Your task to perform on an android device: turn on data saver in the chrome app Image 0: 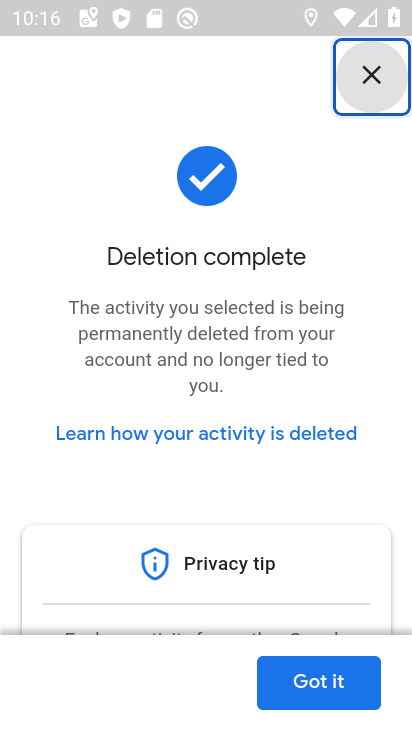
Step 0: press home button
Your task to perform on an android device: turn on data saver in the chrome app Image 1: 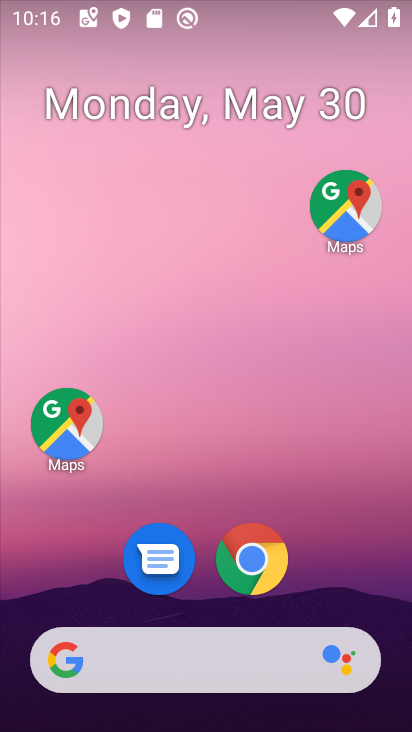
Step 1: click (254, 555)
Your task to perform on an android device: turn on data saver in the chrome app Image 2: 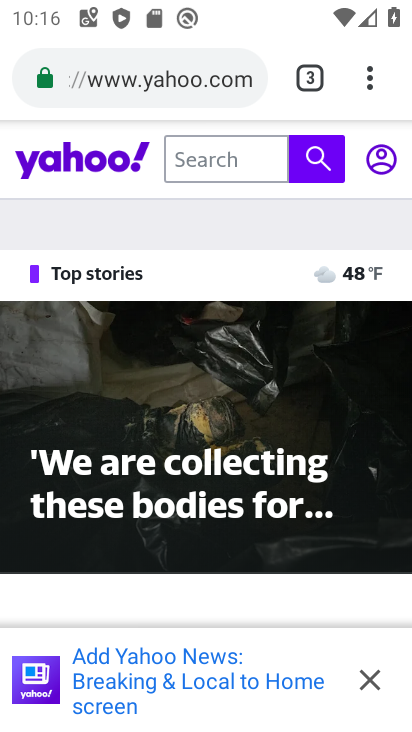
Step 2: drag from (378, 76) to (163, 607)
Your task to perform on an android device: turn on data saver in the chrome app Image 3: 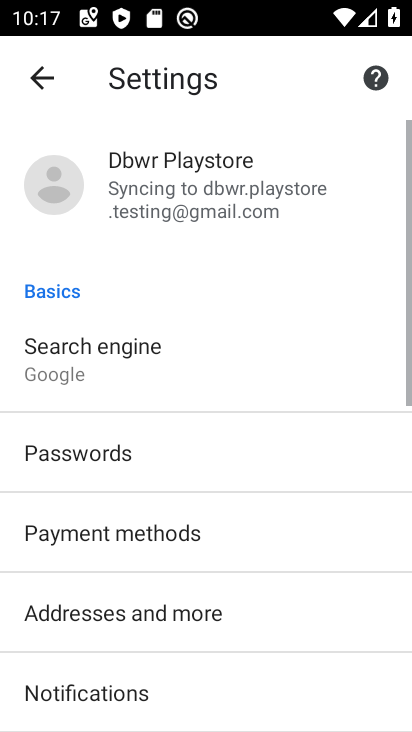
Step 3: drag from (186, 568) to (219, 128)
Your task to perform on an android device: turn on data saver in the chrome app Image 4: 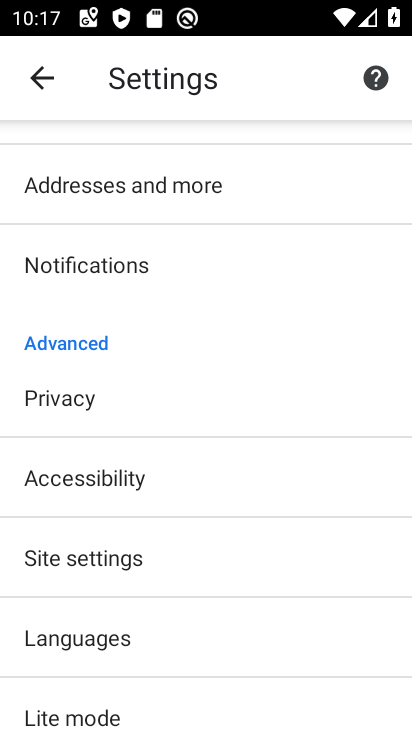
Step 4: drag from (166, 610) to (219, 185)
Your task to perform on an android device: turn on data saver in the chrome app Image 5: 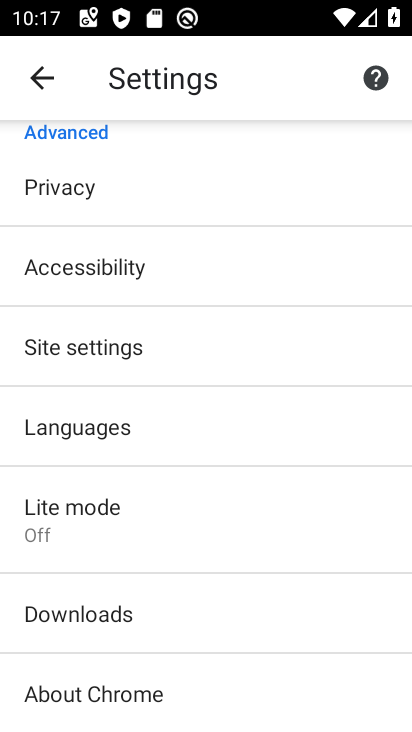
Step 5: click (105, 518)
Your task to perform on an android device: turn on data saver in the chrome app Image 6: 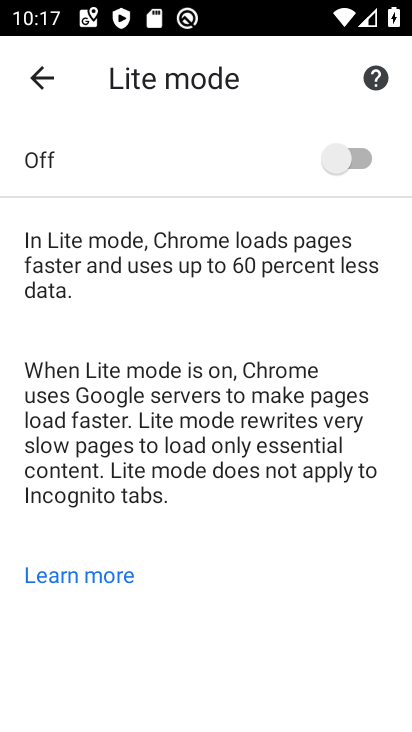
Step 6: click (374, 167)
Your task to perform on an android device: turn on data saver in the chrome app Image 7: 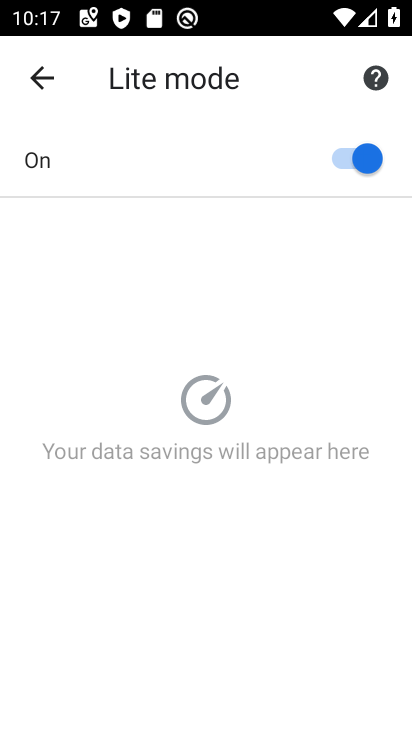
Step 7: task complete